Your task to perform on an android device: Go to calendar. Show me events next week Image 0: 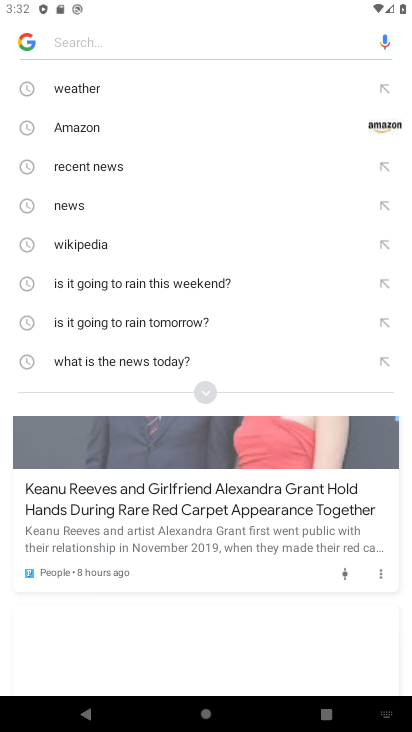
Step 0: press back button
Your task to perform on an android device: Go to calendar. Show me events next week Image 1: 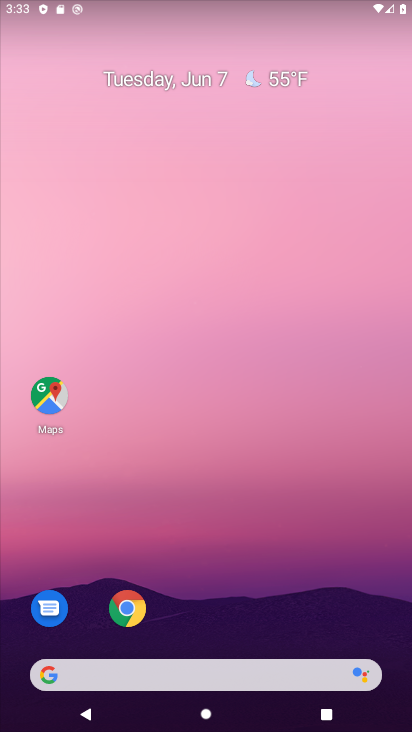
Step 1: drag from (232, 655) to (304, 9)
Your task to perform on an android device: Go to calendar. Show me events next week Image 2: 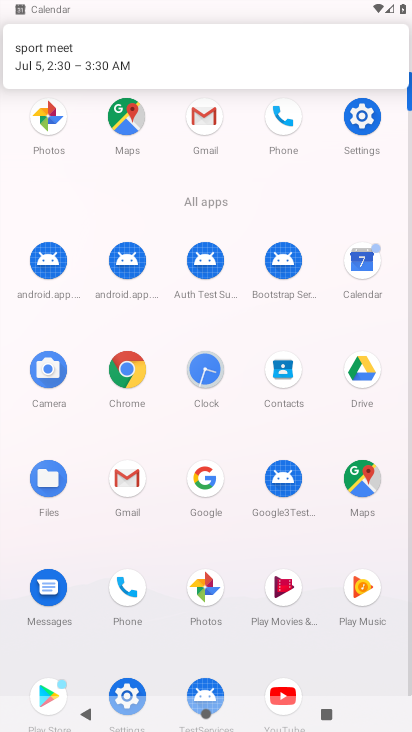
Step 2: click (374, 269)
Your task to perform on an android device: Go to calendar. Show me events next week Image 3: 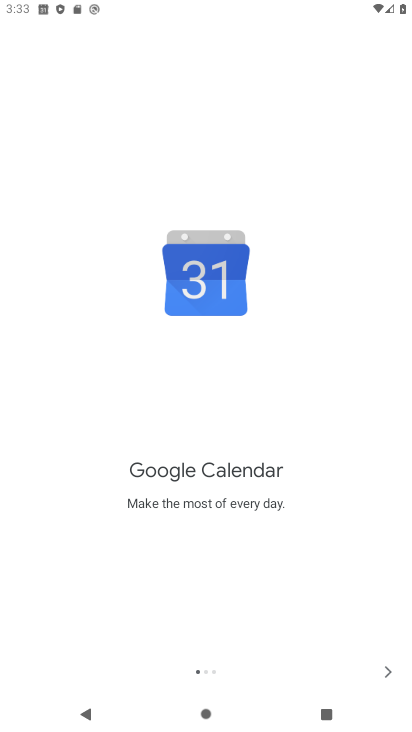
Step 3: click (380, 668)
Your task to perform on an android device: Go to calendar. Show me events next week Image 4: 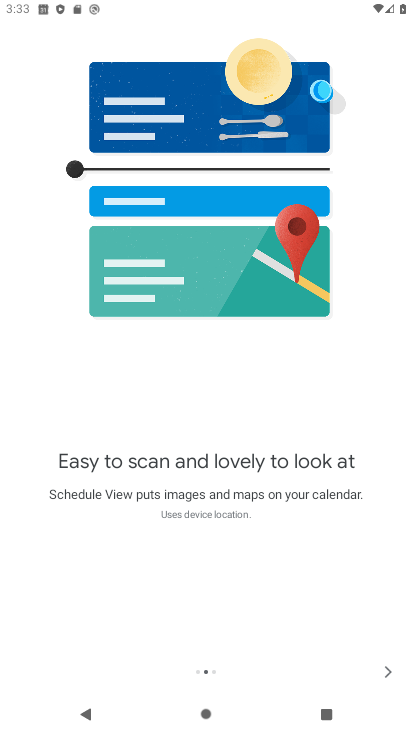
Step 4: click (391, 673)
Your task to perform on an android device: Go to calendar. Show me events next week Image 5: 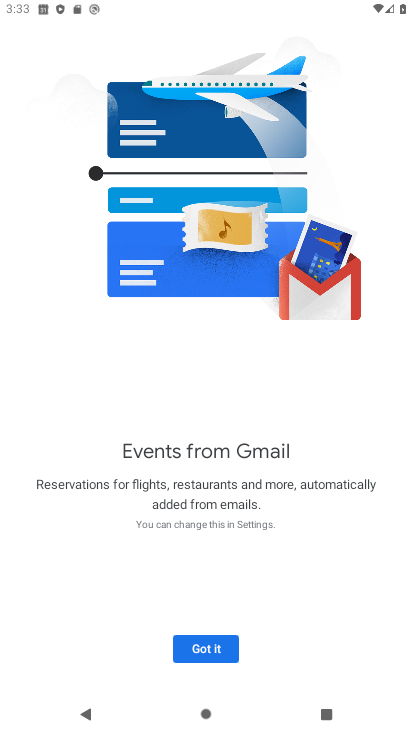
Step 5: click (209, 641)
Your task to perform on an android device: Go to calendar. Show me events next week Image 6: 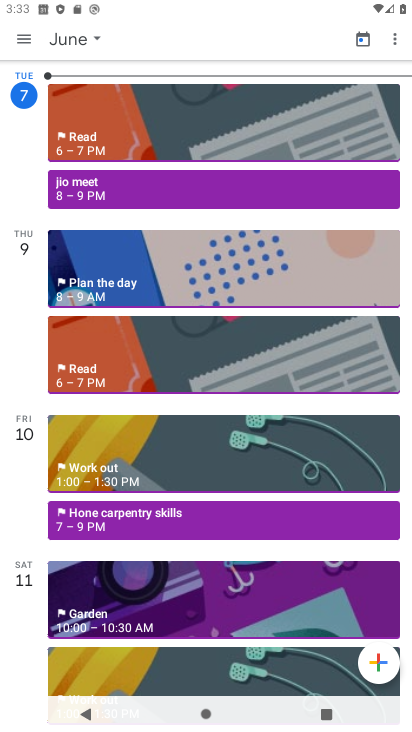
Step 6: click (25, 40)
Your task to perform on an android device: Go to calendar. Show me events next week Image 7: 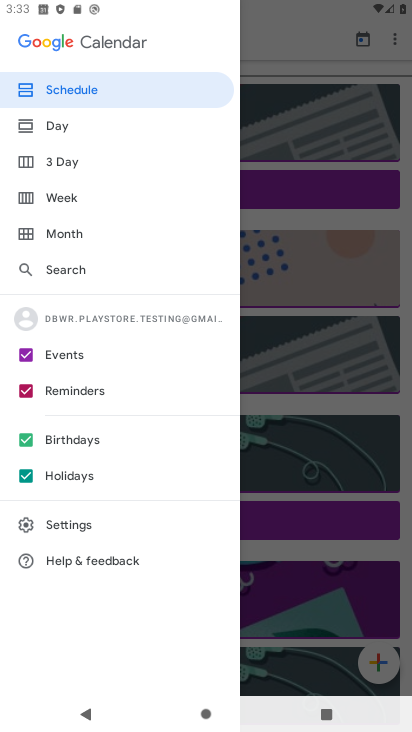
Step 7: click (74, 189)
Your task to perform on an android device: Go to calendar. Show me events next week Image 8: 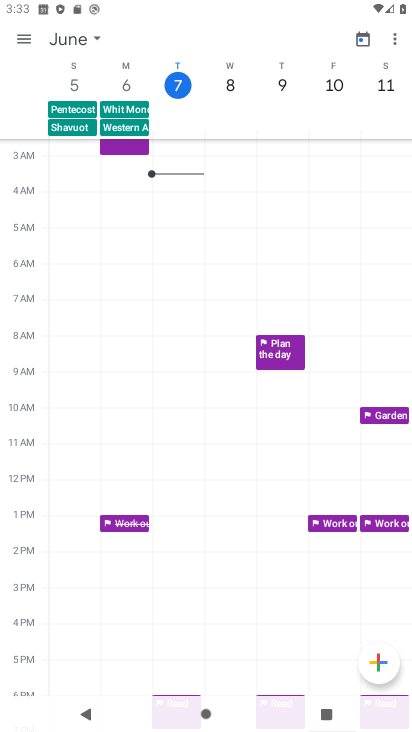
Step 8: task complete